Your task to perform on an android device: Open the phone app and click the voicemail tab. Image 0: 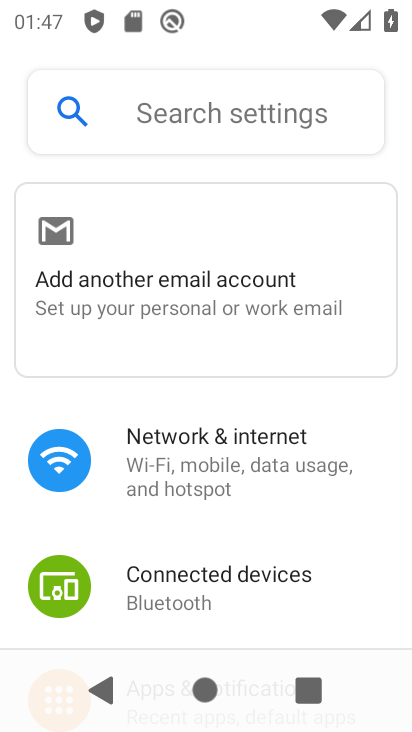
Step 0: press home button
Your task to perform on an android device: Open the phone app and click the voicemail tab. Image 1: 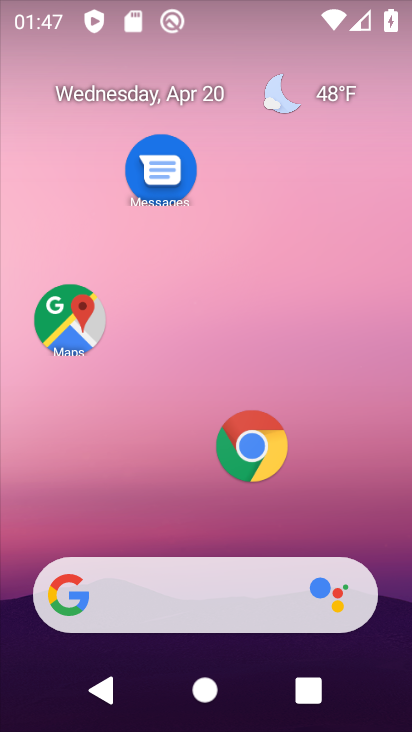
Step 1: drag from (206, 529) to (258, 94)
Your task to perform on an android device: Open the phone app and click the voicemail tab. Image 2: 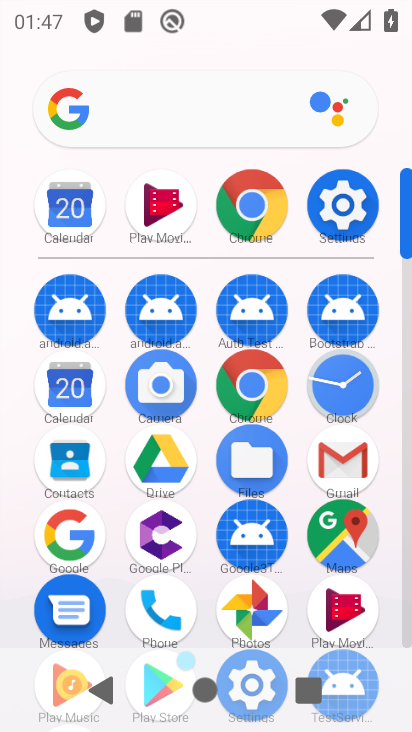
Step 2: click (160, 603)
Your task to perform on an android device: Open the phone app and click the voicemail tab. Image 3: 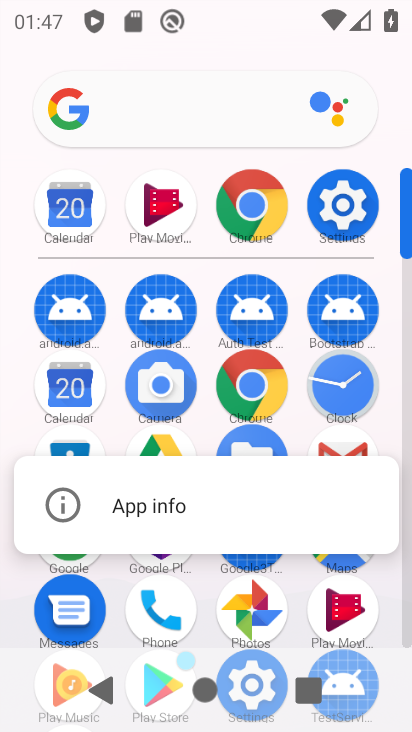
Step 3: click (155, 600)
Your task to perform on an android device: Open the phone app and click the voicemail tab. Image 4: 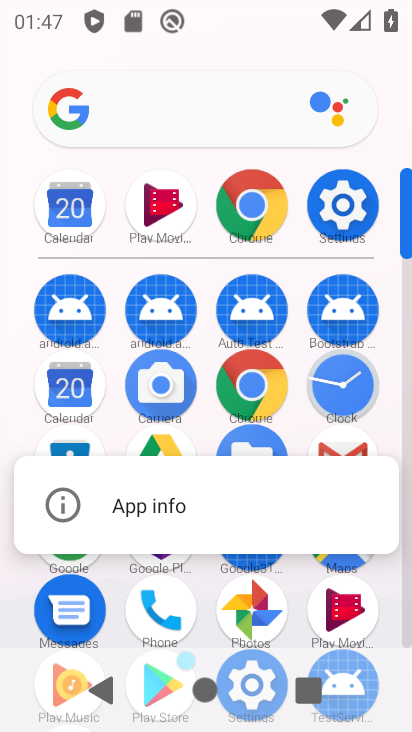
Step 4: click (157, 613)
Your task to perform on an android device: Open the phone app and click the voicemail tab. Image 5: 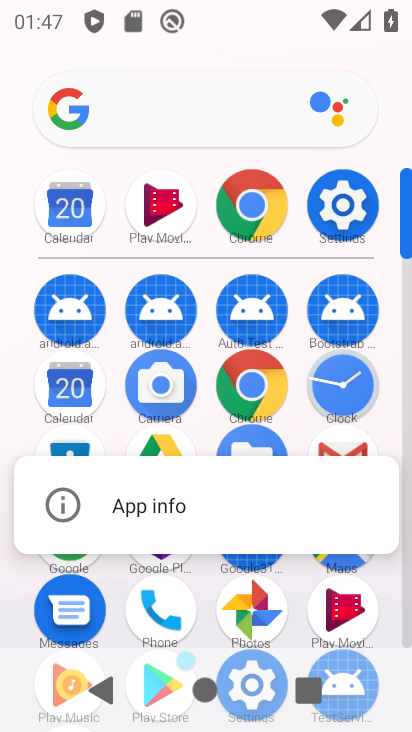
Step 5: click (167, 601)
Your task to perform on an android device: Open the phone app and click the voicemail tab. Image 6: 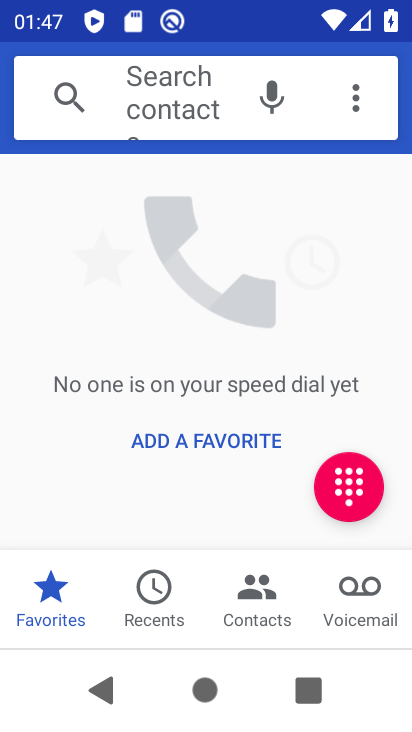
Step 6: click (357, 581)
Your task to perform on an android device: Open the phone app and click the voicemail tab. Image 7: 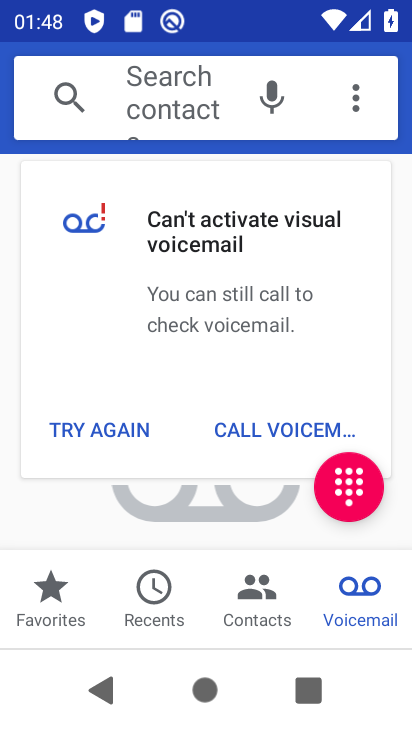
Step 7: task complete